Your task to perform on an android device: toggle sleep mode Image 0: 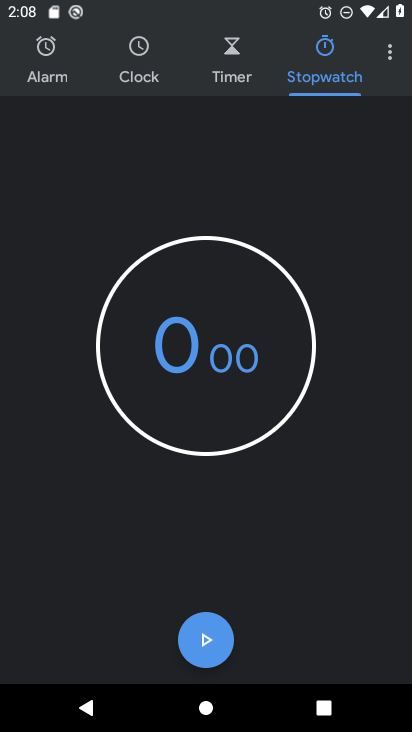
Step 0: press home button
Your task to perform on an android device: toggle sleep mode Image 1: 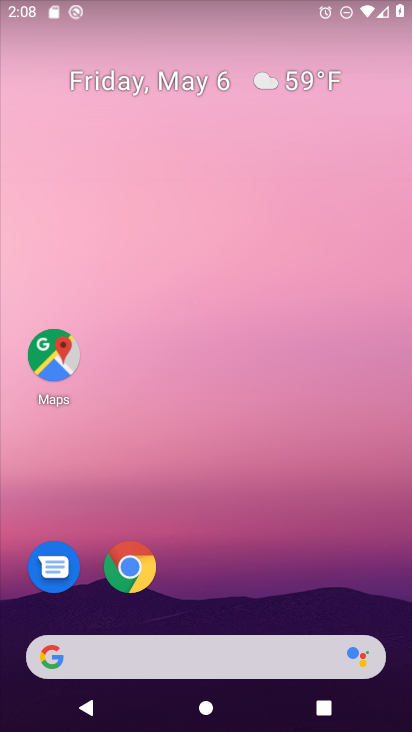
Step 1: drag from (317, 598) to (288, 118)
Your task to perform on an android device: toggle sleep mode Image 2: 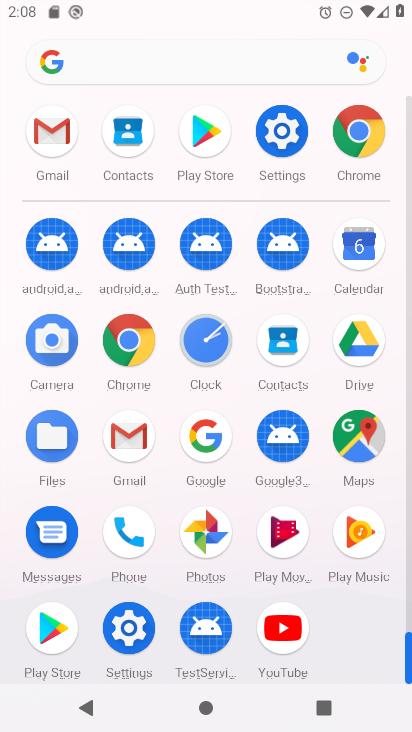
Step 2: click (130, 632)
Your task to perform on an android device: toggle sleep mode Image 3: 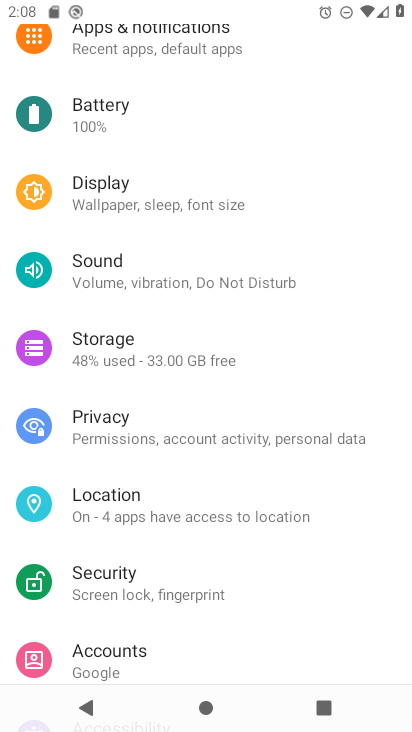
Step 3: drag from (235, 163) to (191, 508)
Your task to perform on an android device: toggle sleep mode Image 4: 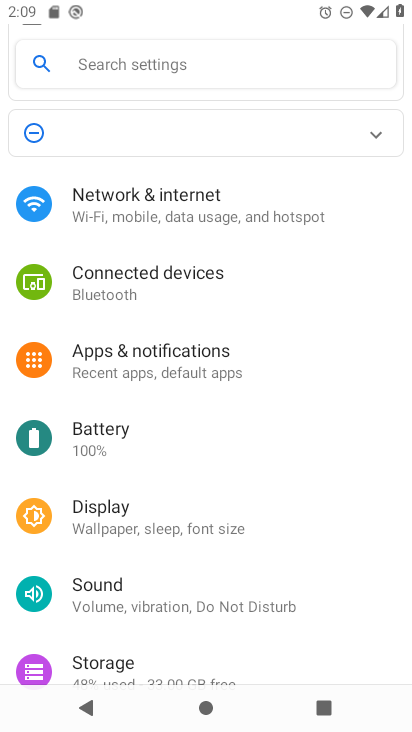
Step 4: drag from (172, 570) to (144, 342)
Your task to perform on an android device: toggle sleep mode Image 5: 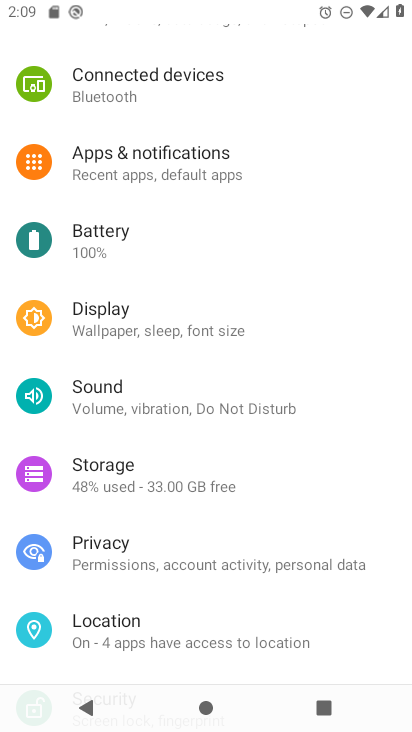
Step 5: click (133, 310)
Your task to perform on an android device: toggle sleep mode Image 6: 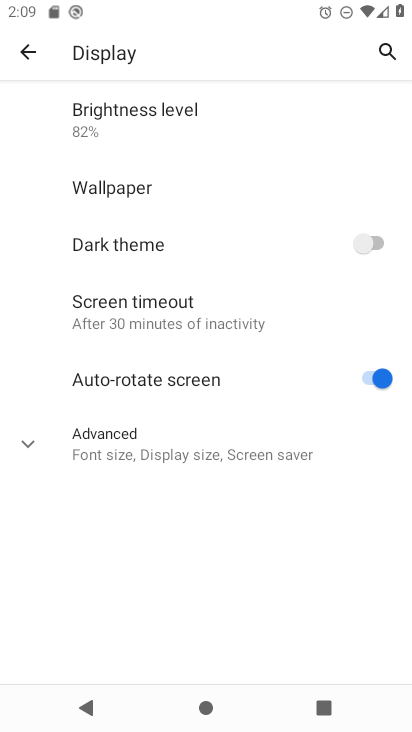
Step 6: drag from (172, 532) to (152, 276)
Your task to perform on an android device: toggle sleep mode Image 7: 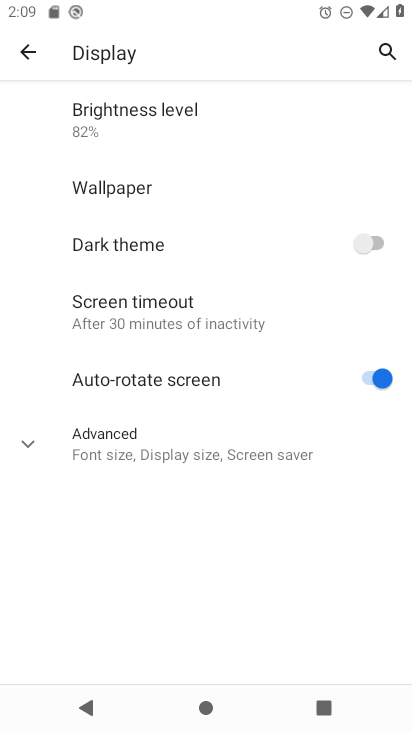
Step 7: click (180, 323)
Your task to perform on an android device: toggle sleep mode Image 8: 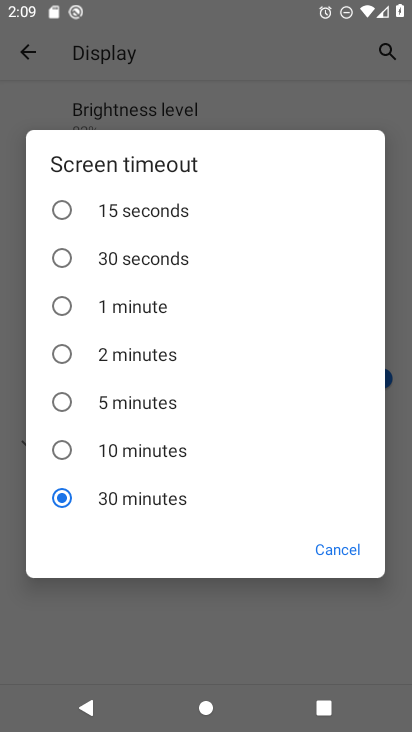
Step 8: task complete